Your task to perform on an android device: clear history in the chrome app Image 0: 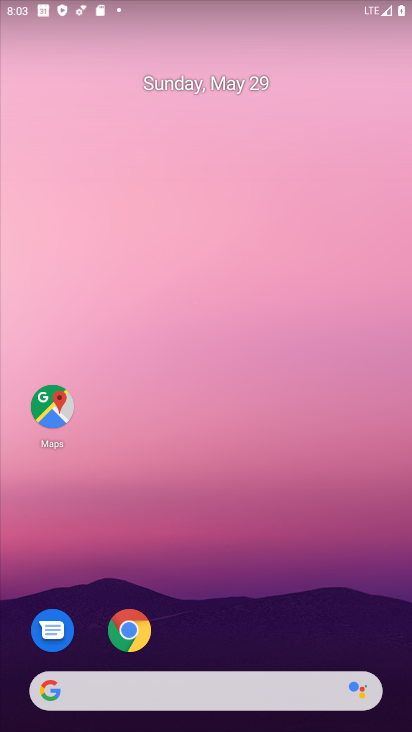
Step 0: click (131, 620)
Your task to perform on an android device: clear history in the chrome app Image 1: 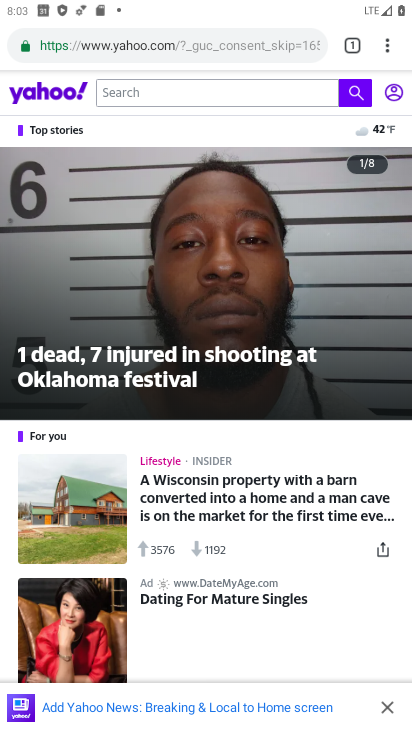
Step 1: click (390, 49)
Your task to perform on an android device: clear history in the chrome app Image 2: 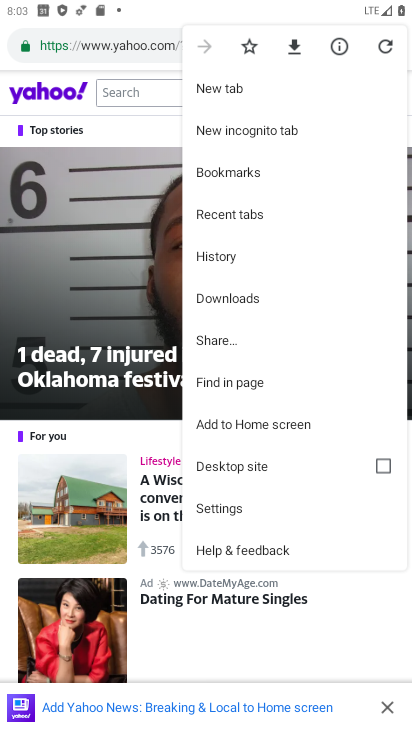
Step 2: click (211, 255)
Your task to perform on an android device: clear history in the chrome app Image 3: 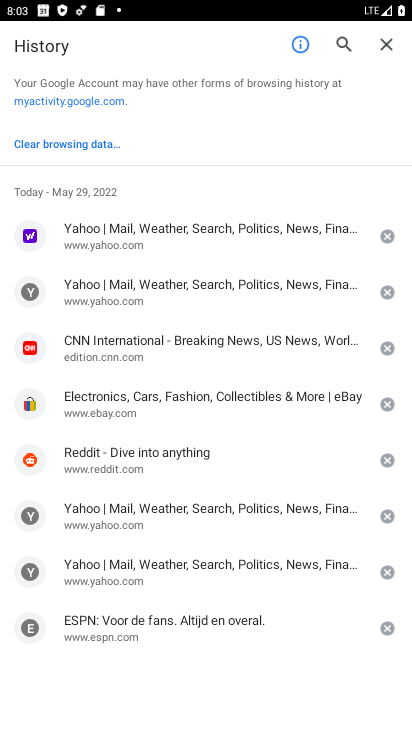
Step 3: click (72, 146)
Your task to perform on an android device: clear history in the chrome app Image 4: 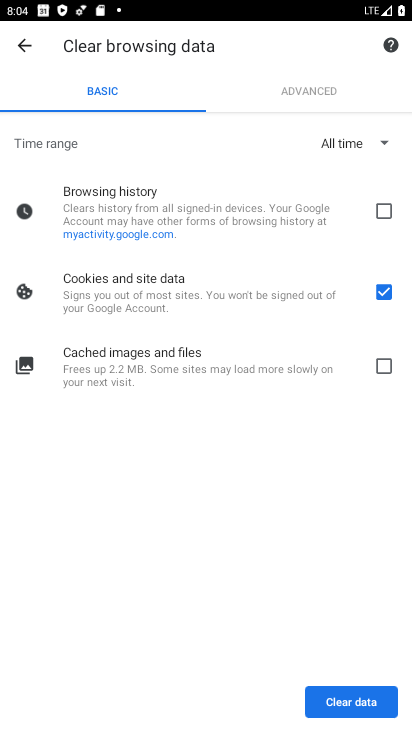
Step 4: click (381, 213)
Your task to perform on an android device: clear history in the chrome app Image 5: 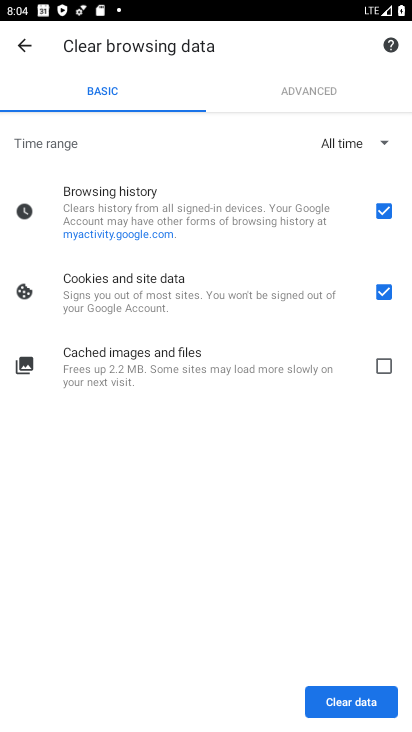
Step 5: click (337, 691)
Your task to perform on an android device: clear history in the chrome app Image 6: 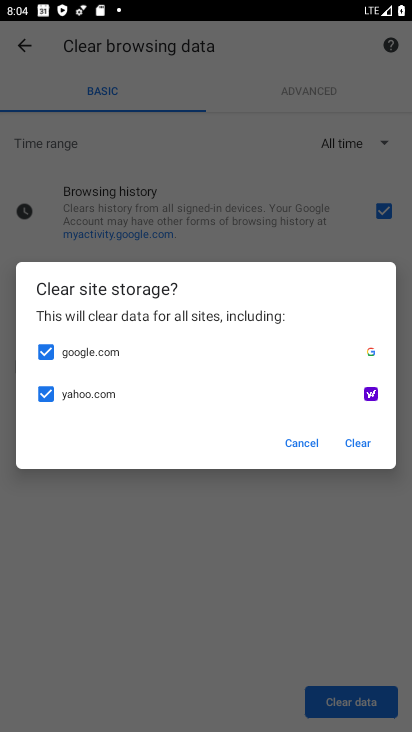
Step 6: click (368, 444)
Your task to perform on an android device: clear history in the chrome app Image 7: 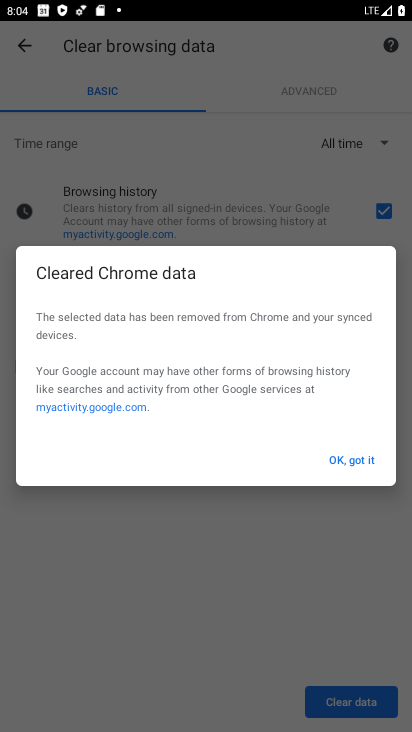
Step 7: click (353, 454)
Your task to perform on an android device: clear history in the chrome app Image 8: 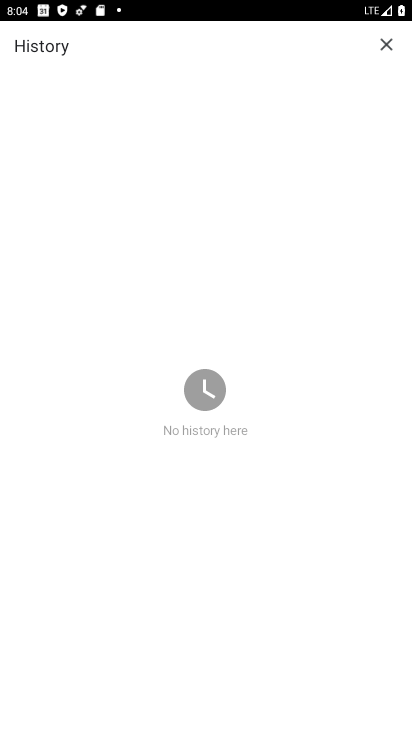
Step 8: task complete